Your task to perform on an android device: change the upload size in google photos Image 0: 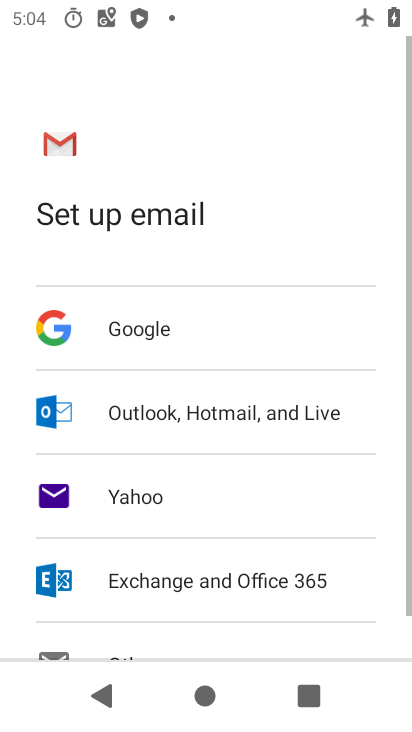
Step 0: press home button
Your task to perform on an android device: change the upload size in google photos Image 1: 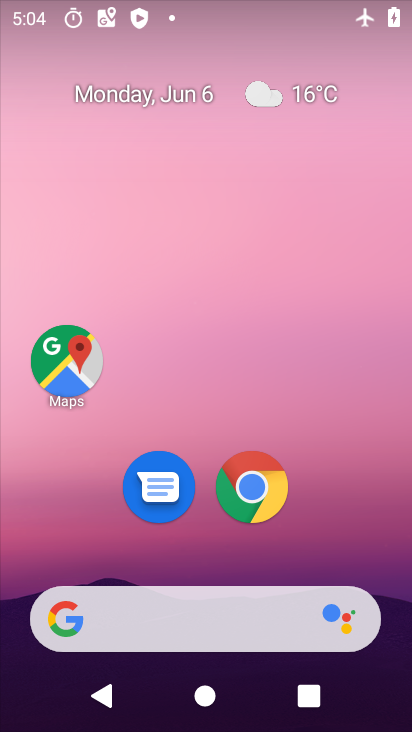
Step 1: drag from (329, 508) to (239, 126)
Your task to perform on an android device: change the upload size in google photos Image 2: 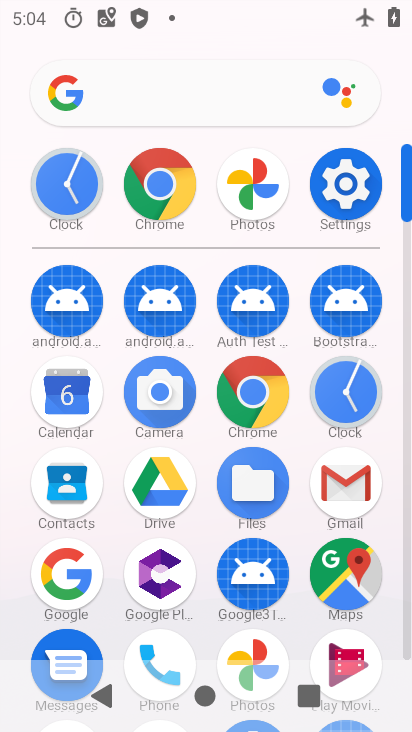
Step 2: click (237, 187)
Your task to perform on an android device: change the upload size in google photos Image 3: 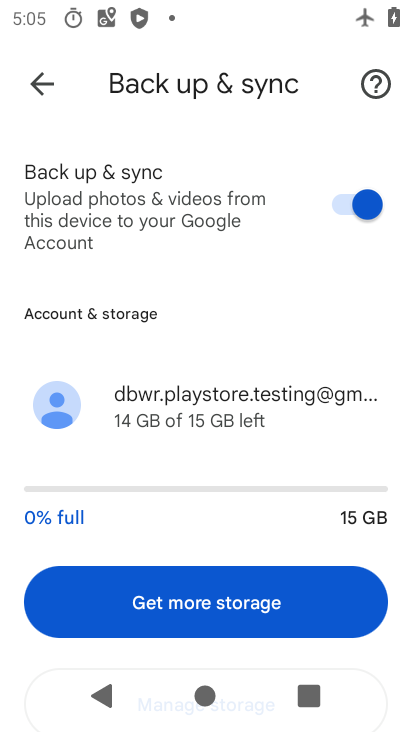
Step 3: drag from (263, 552) to (272, 185)
Your task to perform on an android device: change the upload size in google photos Image 4: 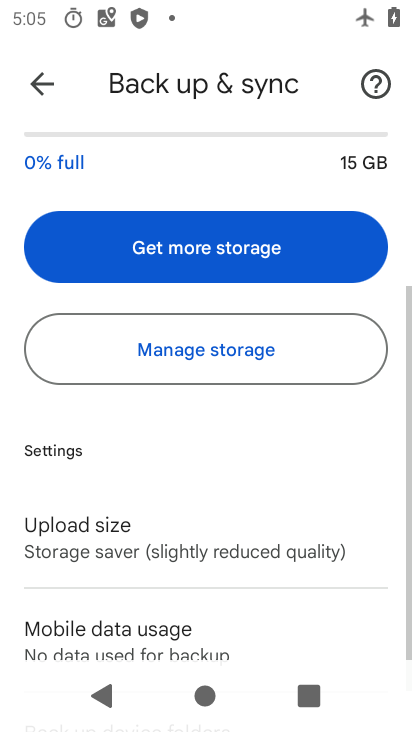
Step 4: click (175, 546)
Your task to perform on an android device: change the upload size in google photos Image 5: 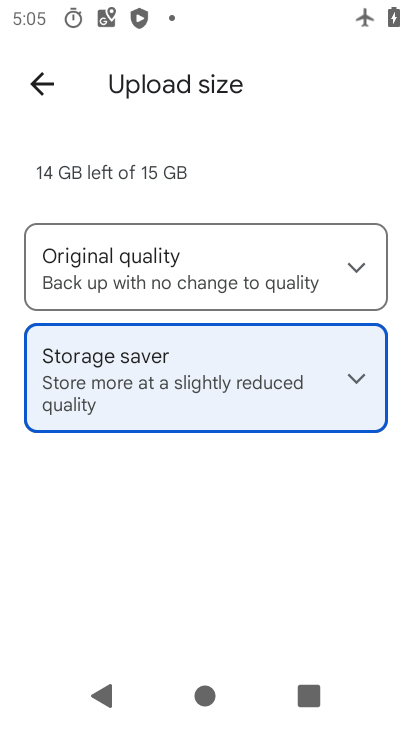
Step 5: click (163, 270)
Your task to perform on an android device: change the upload size in google photos Image 6: 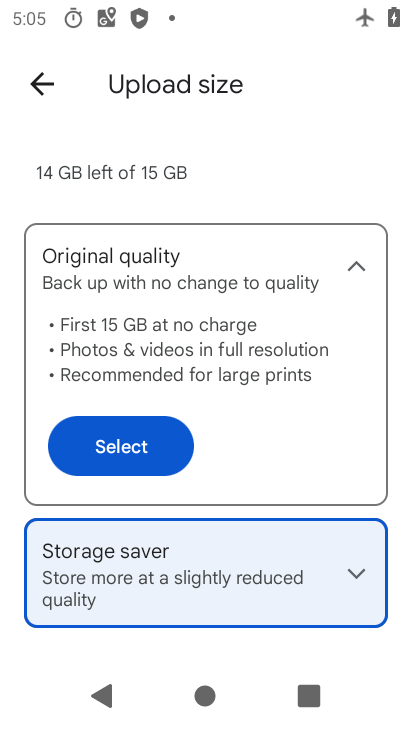
Step 6: task complete